Your task to perform on an android device: Open internet settings Image 0: 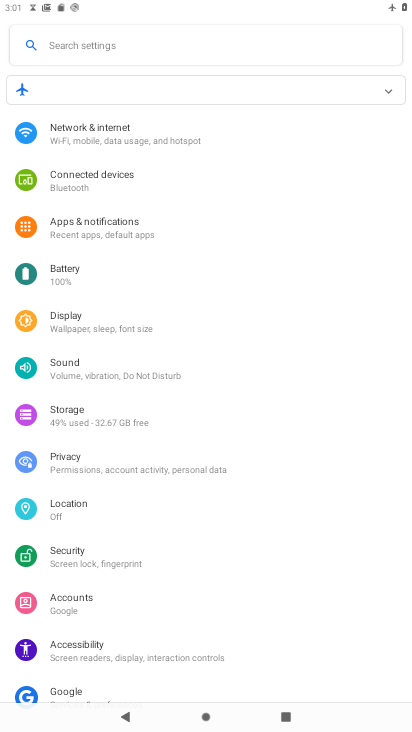
Step 0: click (195, 139)
Your task to perform on an android device: Open internet settings Image 1: 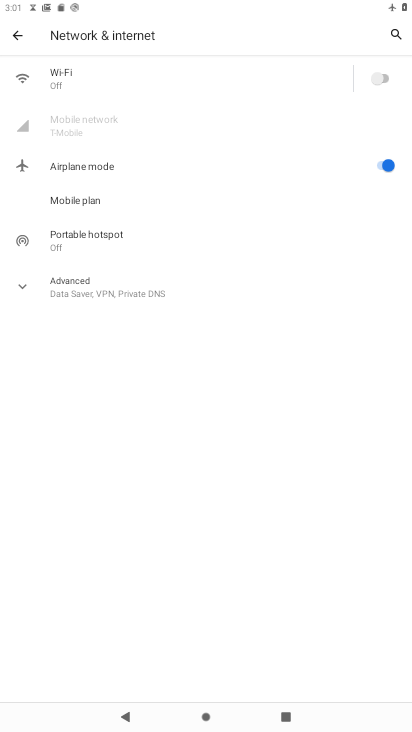
Step 1: task complete